Your task to perform on an android device: Go to calendar. Show me events next week Image 0: 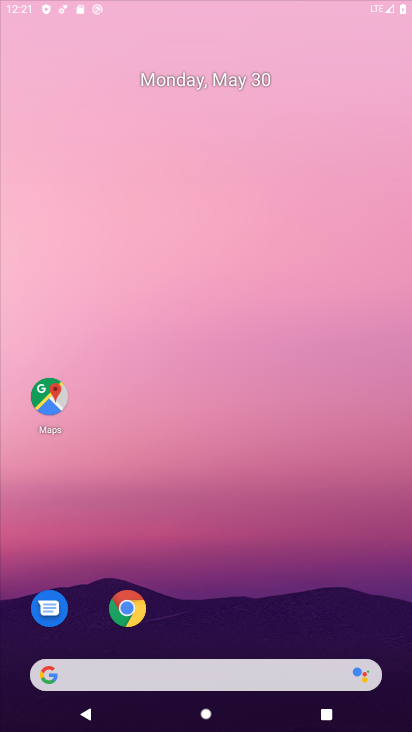
Step 0: drag from (166, 488) to (138, 593)
Your task to perform on an android device: Go to calendar. Show me events next week Image 1: 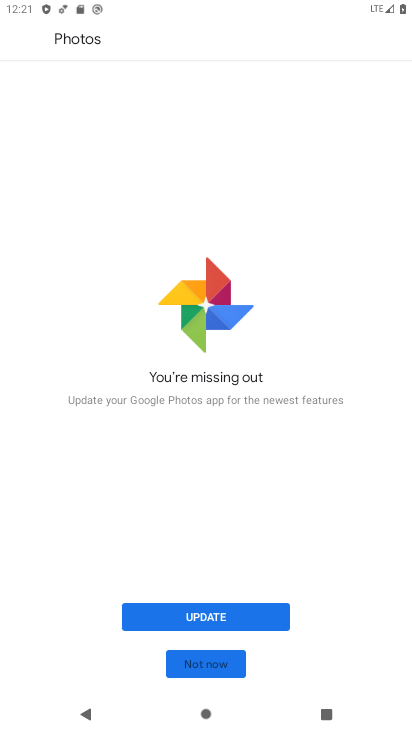
Step 1: press home button
Your task to perform on an android device: Go to calendar. Show me events next week Image 2: 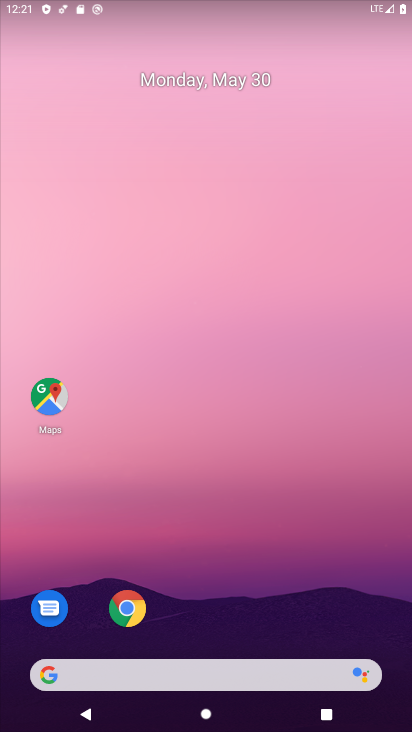
Step 2: drag from (183, 597) to (292, 34)
Your task to perform on an android device: Go to calendar. Show me events next week Image 3: 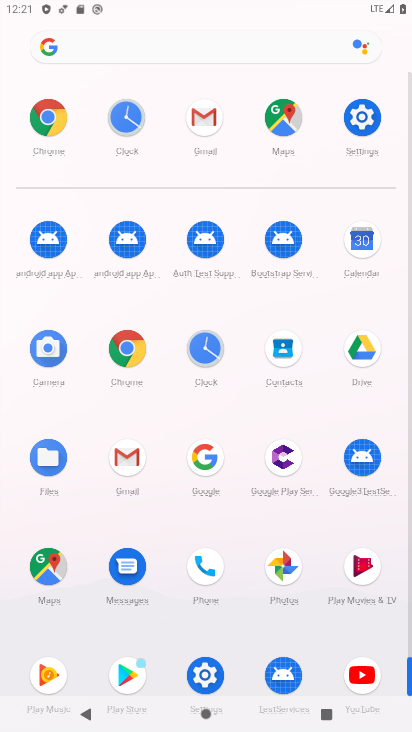
Step 3: click (365, 259)
Your task to perform on an android device: Go to calendar. Show me events next week Image 4: 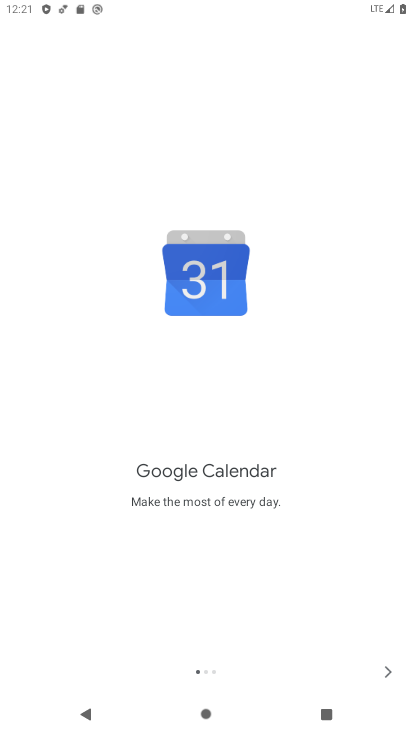
Step 4: click (386, 664)
Your task to perform on an android device: Go to calendar. Show me events next week Image 5: 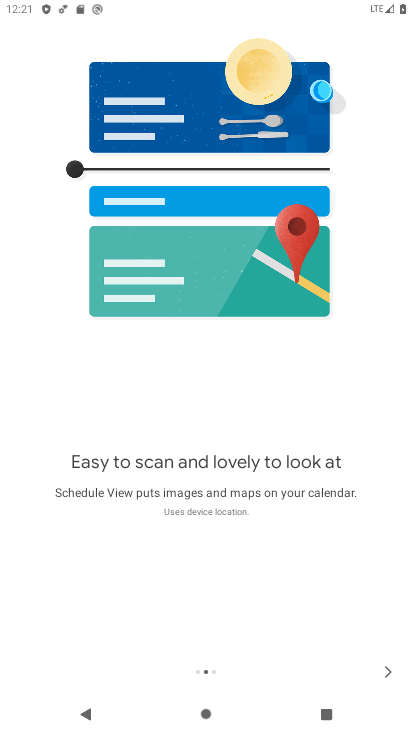
Step 5: click (386, 664)
Your task to perform on an android device: Go to calendar. Show me events next week Image 6: 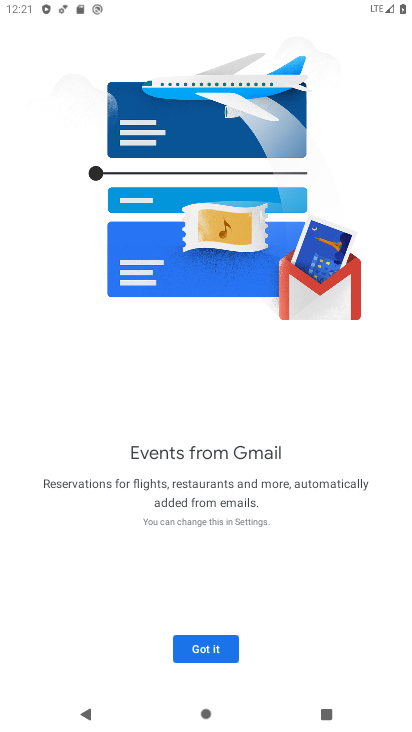
Step 6: click (188, 646)
Your task to perform on an android device: Go to calendar. Show me events next week Image 7: 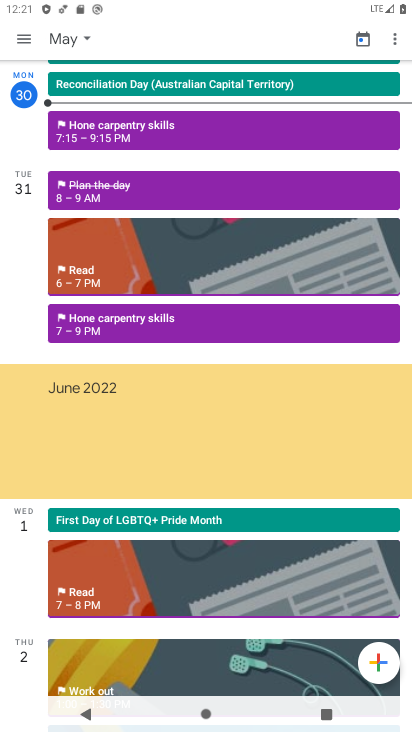
Step 7: click (29, 43)
Your task to perform on an android device: Go to calendar. Show me events next week Image 8: 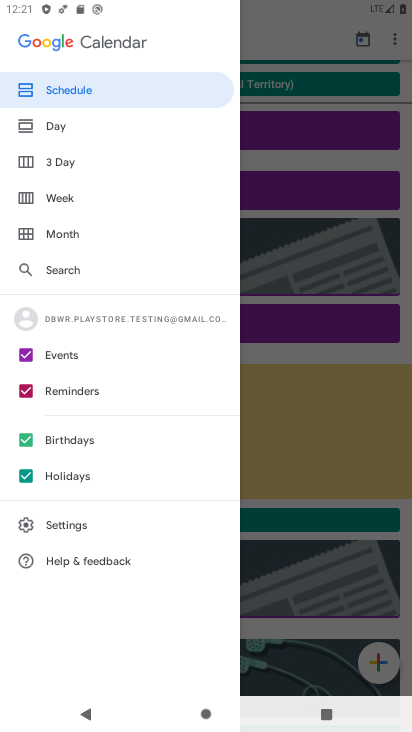
Step 8: click (91, 393)
Your task to perform on an android device: Go to calendar. Show me events next week Image 9: 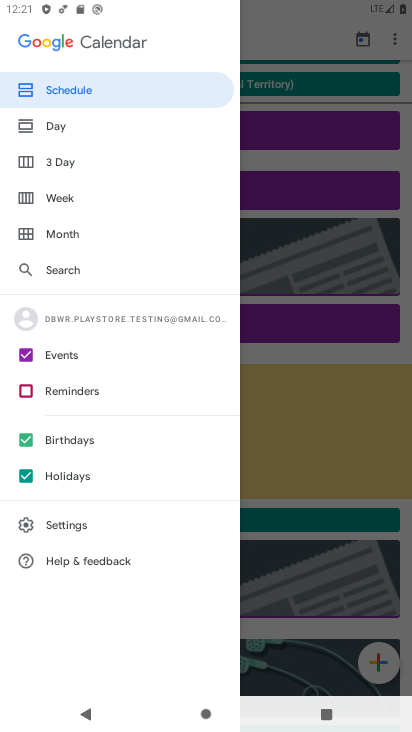
Step 9: click (85, 437)
Your task to perform on an android device: Go to calendar. Show me events next week Image 10: 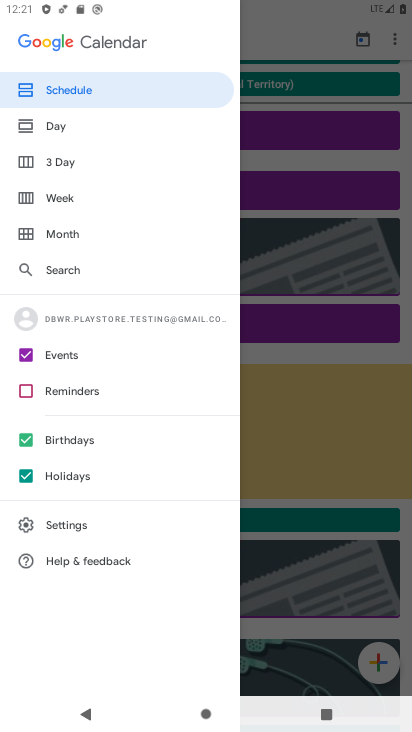
Step 10: click (78, 474)
Your task to perform on an android device: Go to calendar. Show me events next week Image 11: 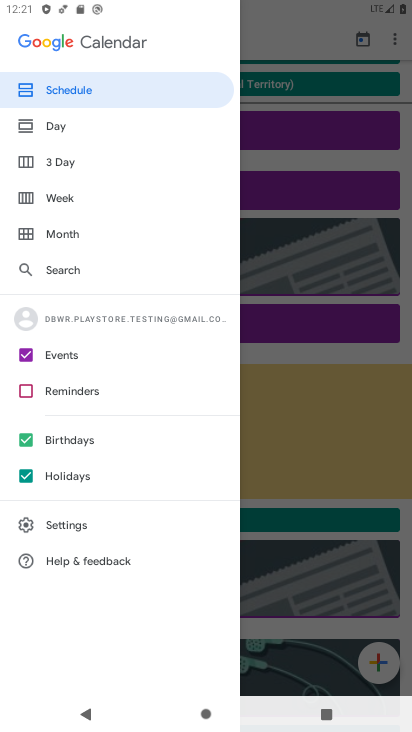
Step 11: click (29, 438)
Your task to perform on an android device: Go to calendar. Show me events next week Image 12: 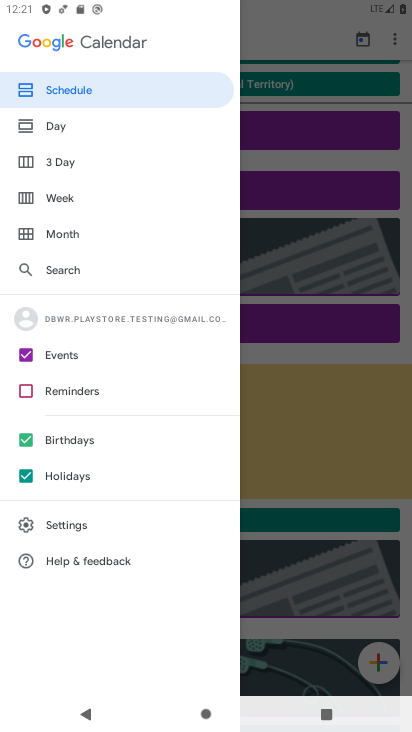
Step 12: click (29, 443)
Your task to perform on an android device: Go to calendar. Show me events next week Image 13: 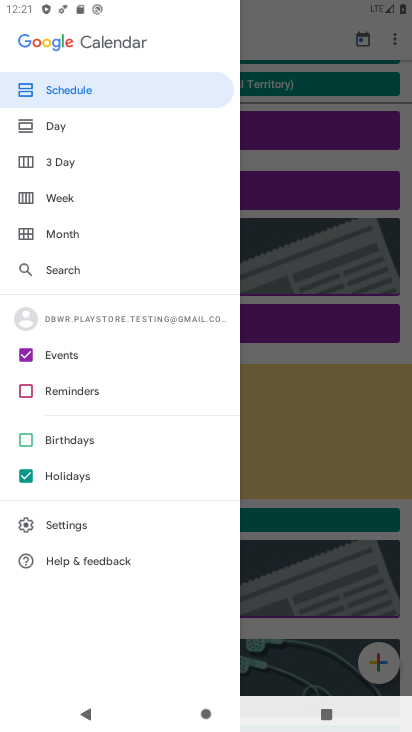
Step 13: click (28, 485)
Your task to perform on an android device: Go to calendar. Show me events next week Image 14: 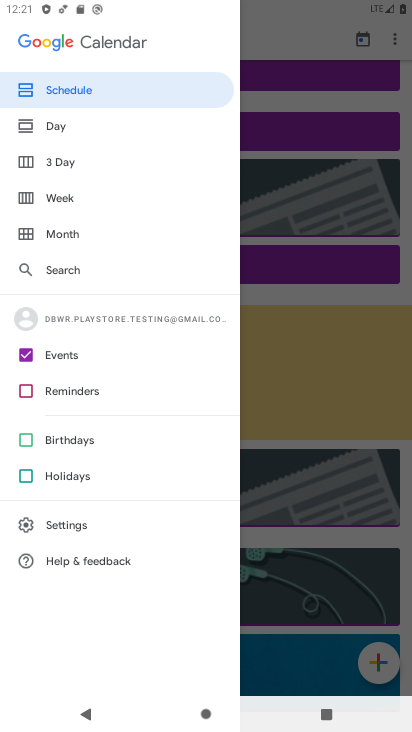
Step 14: click (70, 207)
Your task to perform on an android device: Go to calendar. Show me events next week Image 15: 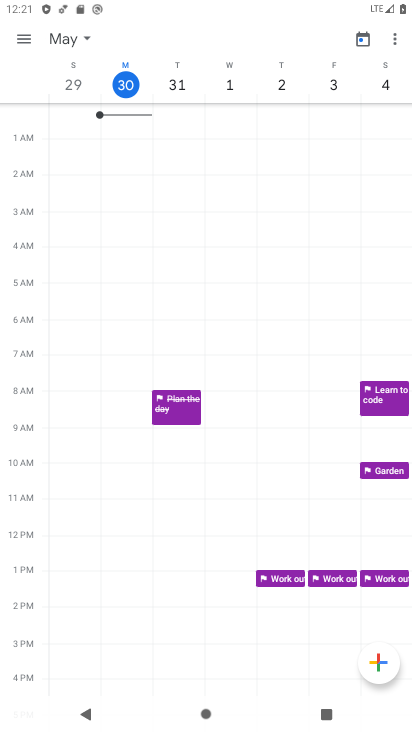
Step 15: task complete